Your task to perform on an android device: Open location settings Image 0: 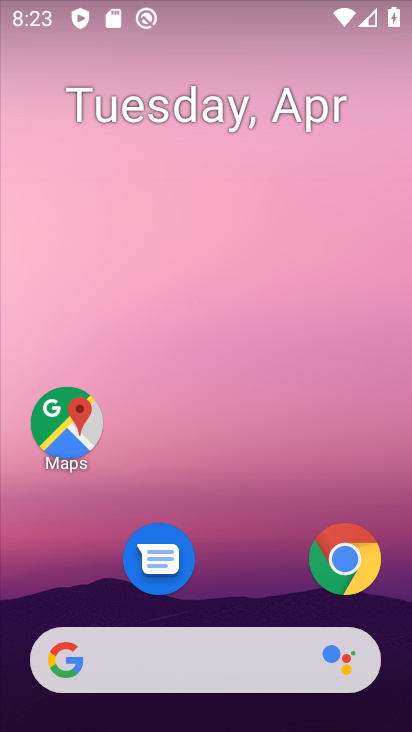
Step 0: click (236, 181)
Your task to perform on an android device: Open location settings Image 1: 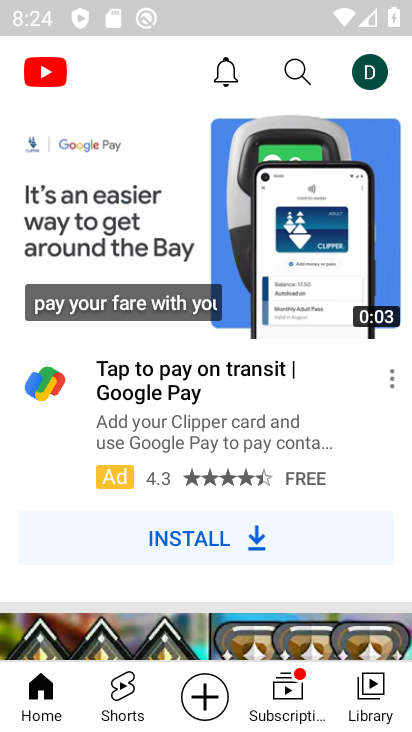
Step 1: press home button
Your task to perform on an android device: Open location settings Image 2: 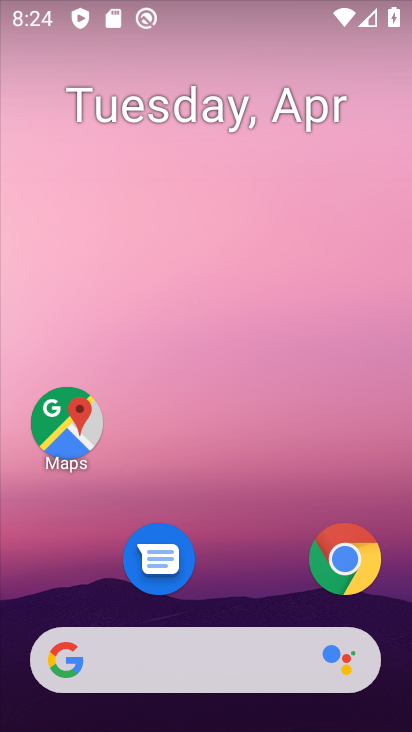
Step 2: drag from (256, 705) to (233, 115)
Your task to perform on an android device: Open location settings Image 3: 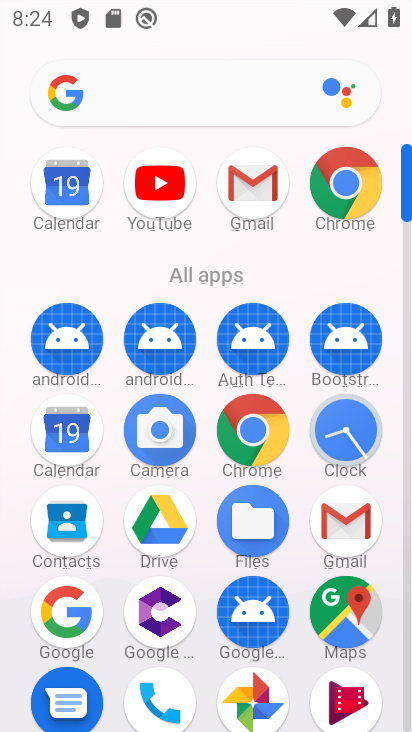
Step 3: drag from (209, 578) to (130, 63)
Your task to perform on an android device: Open location settings Image 4: 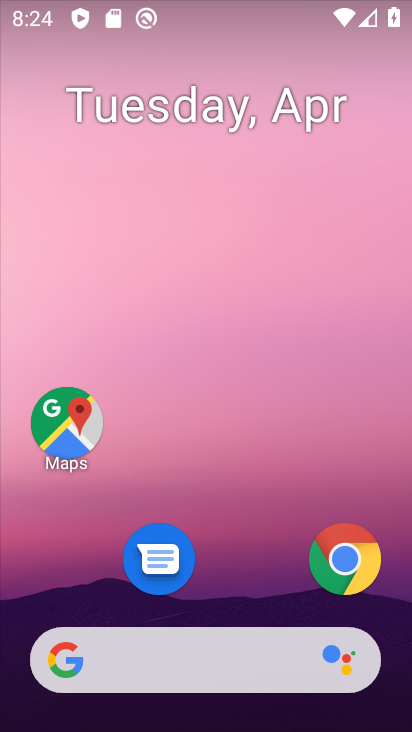
Step 4: drag from (247, 700) to (240, 188)
Your task to perform on an android device: Open location settings Image 5: 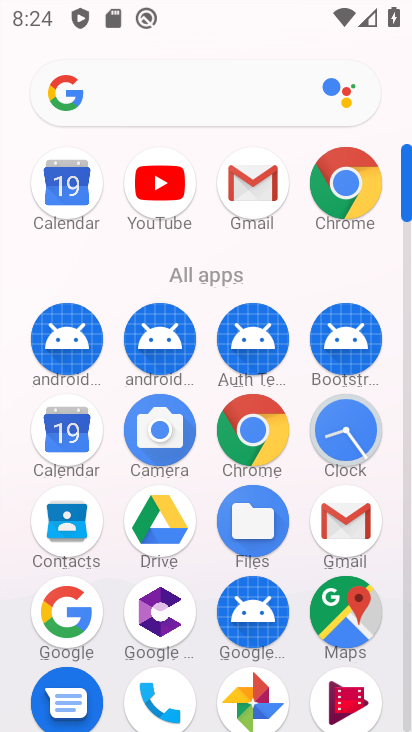
Step 5: drag from (207, 564) to (202, 417)
Your task to perform on an android device: Open location settings Image 6: 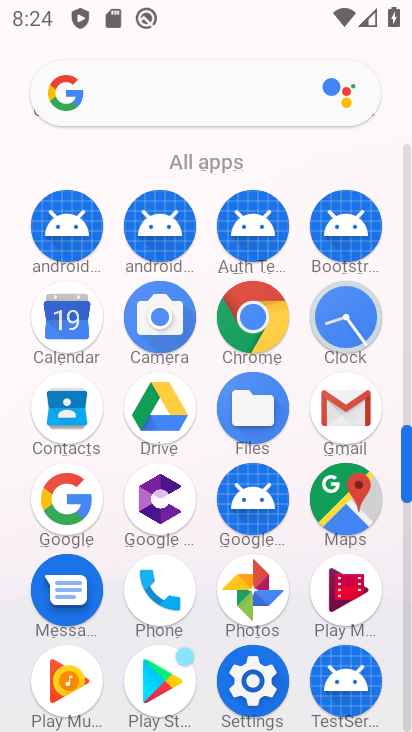
Step 6: click (255, 674)
Your task to perform on an android device: Open location settings Image 7: 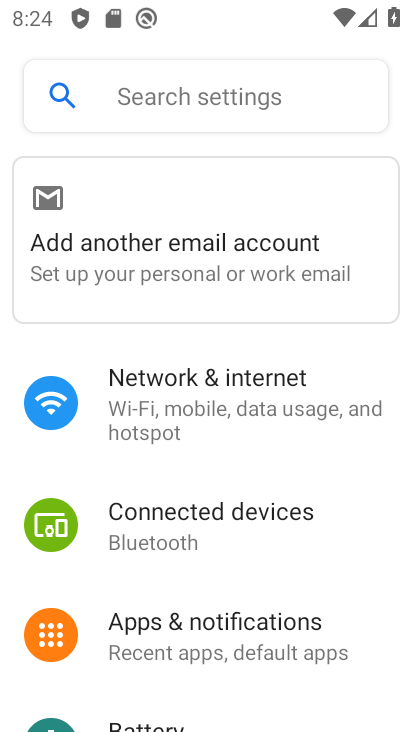
Step 7: click (149, 96)
Your task to perform on an android device: Open location settings Image 8: 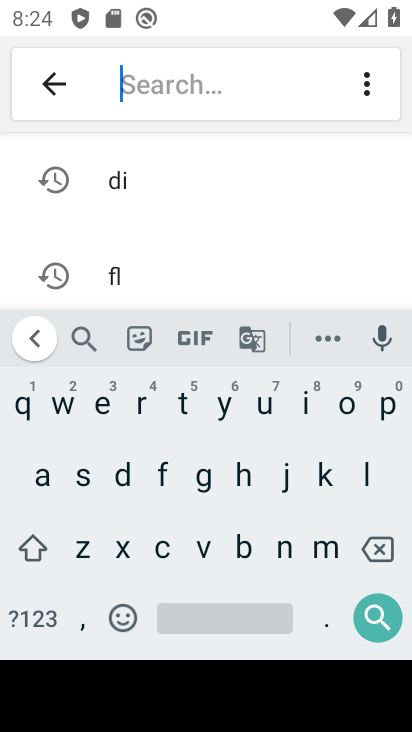
Step 8: press back button
Your task to perform on an android device: Open location settings Image 9: 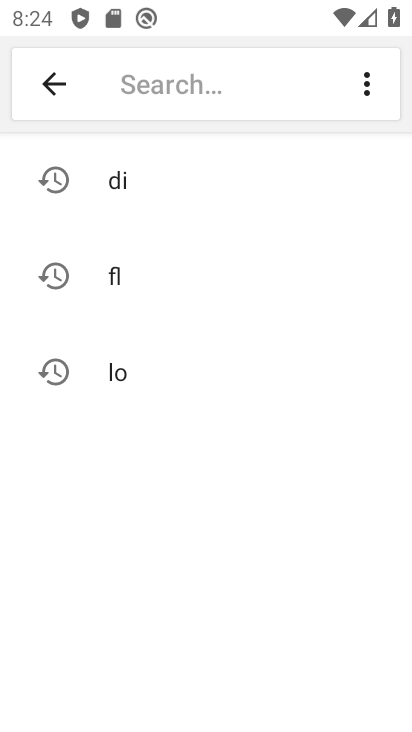
Step 9: click (136, 381)
Your task to perform on an android device: Open location settings Image 10: 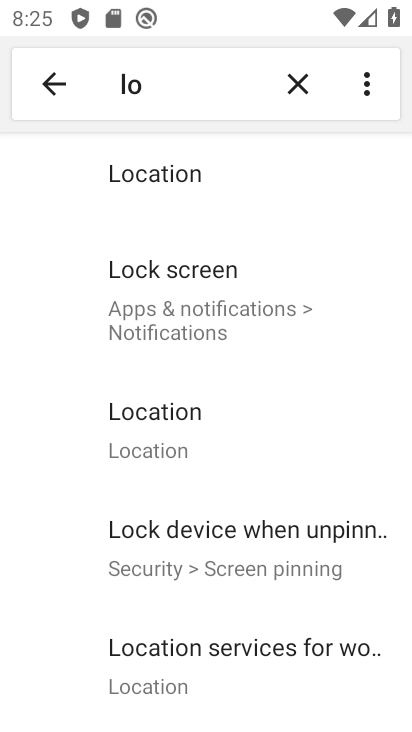
Step 10: click (141, 427)
Your task to perform on an android device: Open location settings Image 11: 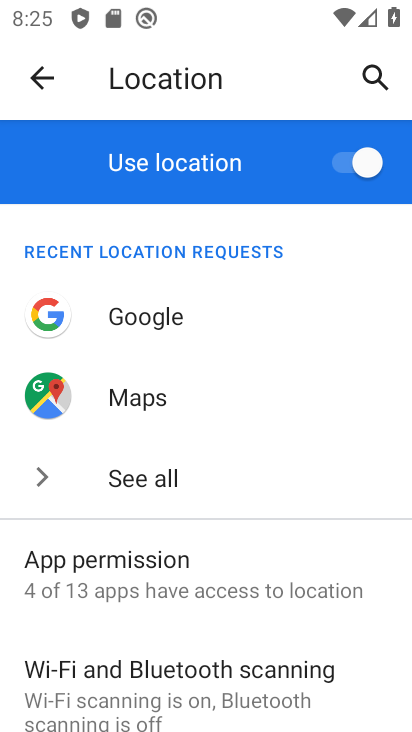
Step 11: drag from (155, 563) to (212, 215)
Your task to perform on an android device: Open location settings Image 12: 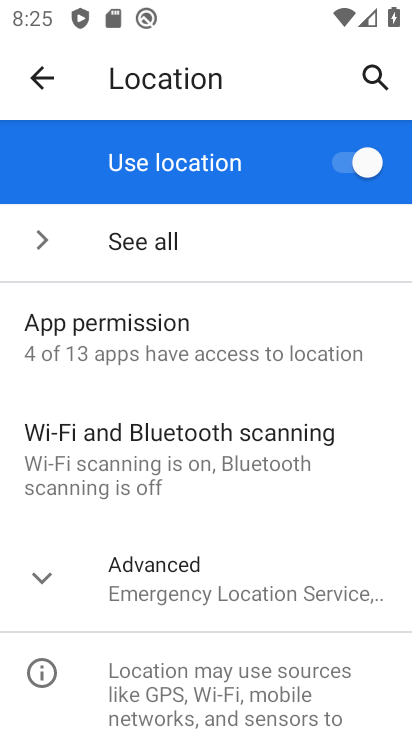
Step 12: click (64, 591)
Your task to perform on an android device: Open location settings Image 13: 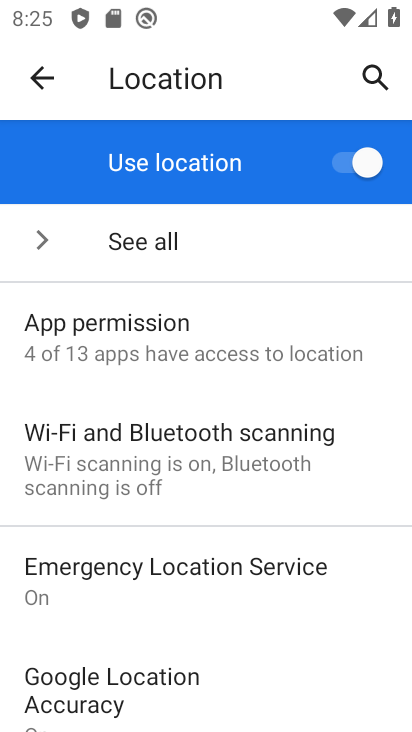
Step 13: task complete